Your task to perform on an android device: refresh tabs in the chrome app Image 0: 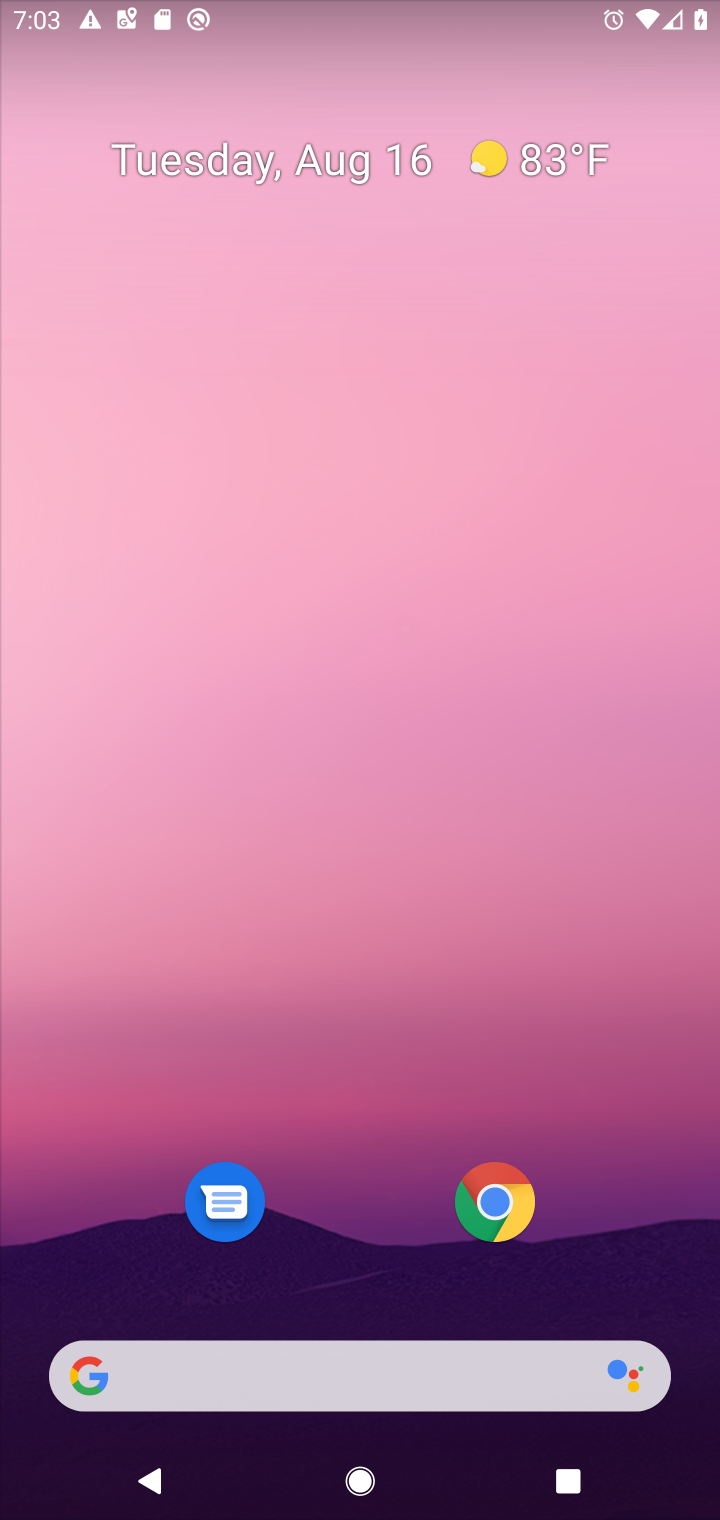
Step 0: drag from (671, 1261) to (279, 95)
Your task to perform on an android device: refresh tabs in the chrome app Image 1: 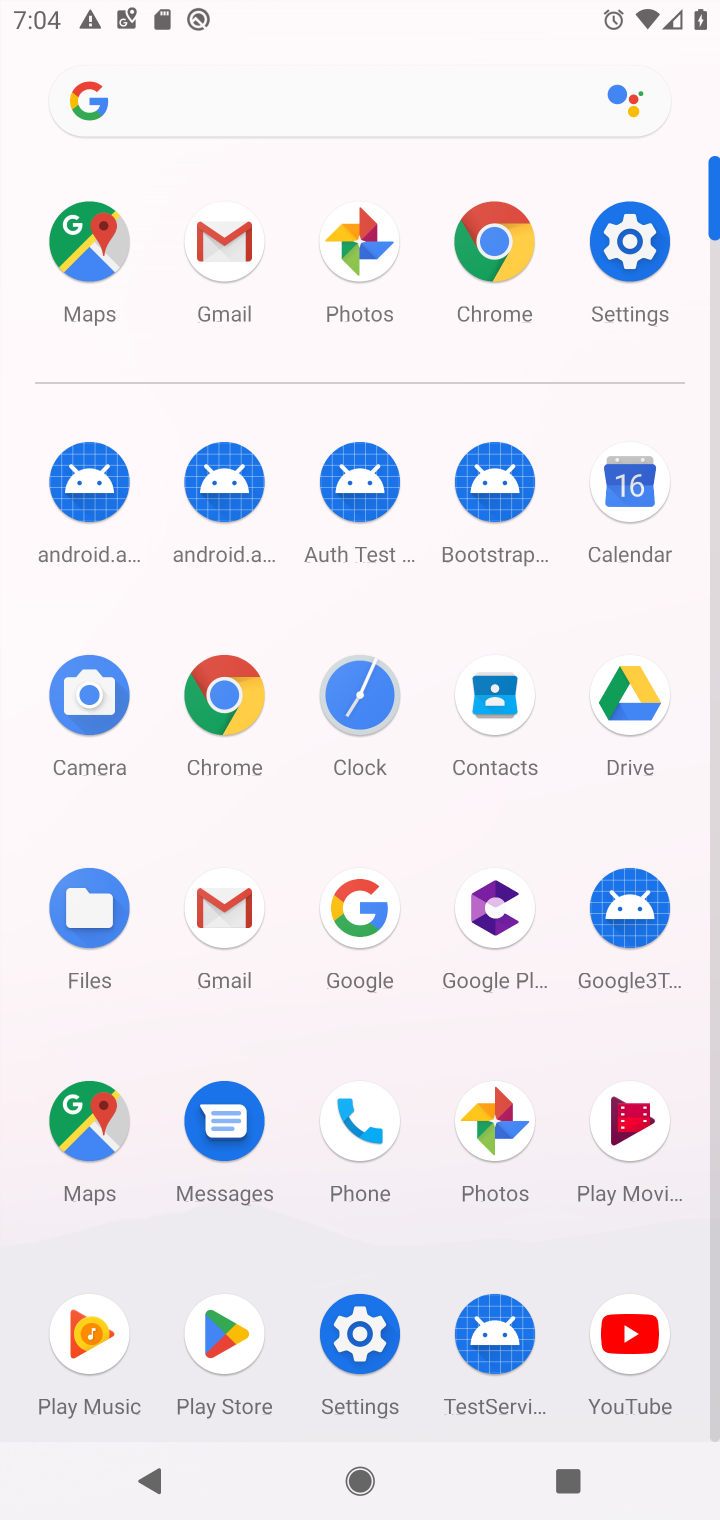
Step 1: click (246, 694)
Your task to perform on an android device: refresh tabs in the chrome app Image 2: 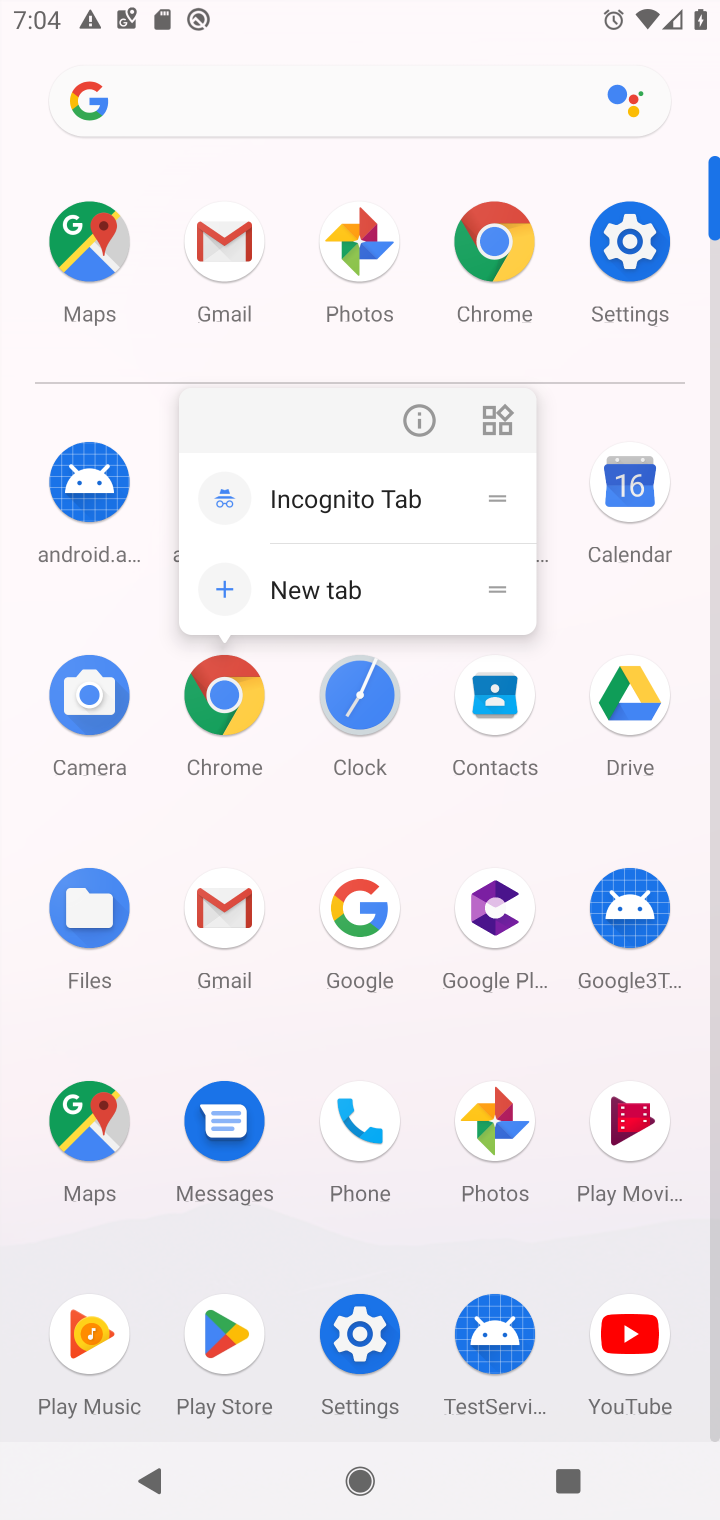
Step 2: click (246, 694)
Your task to perform on an android device: refresh tabs in the chrome app Image 3: 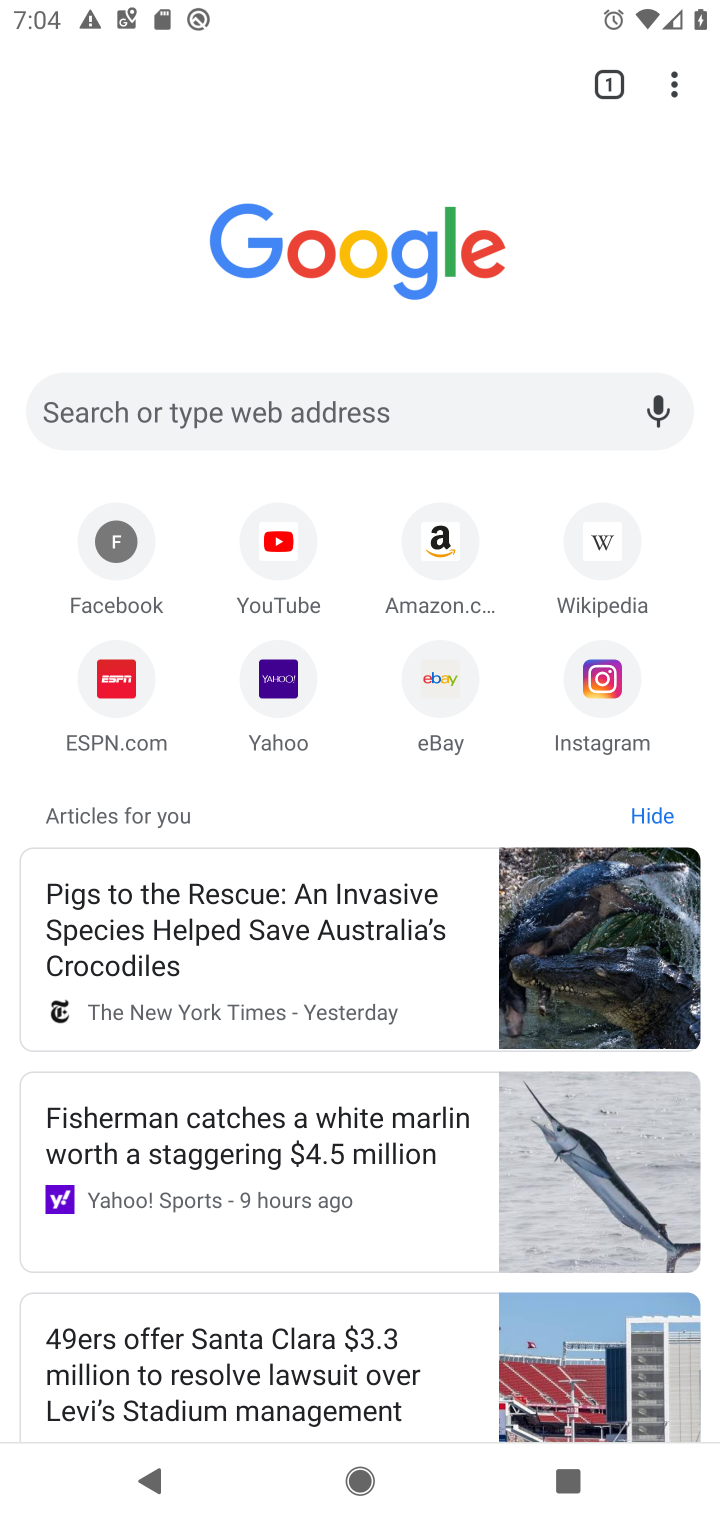
Step 3: click (667, 82)
Your task to perform on an android device: refresh tabs in the chrome app Image 4: 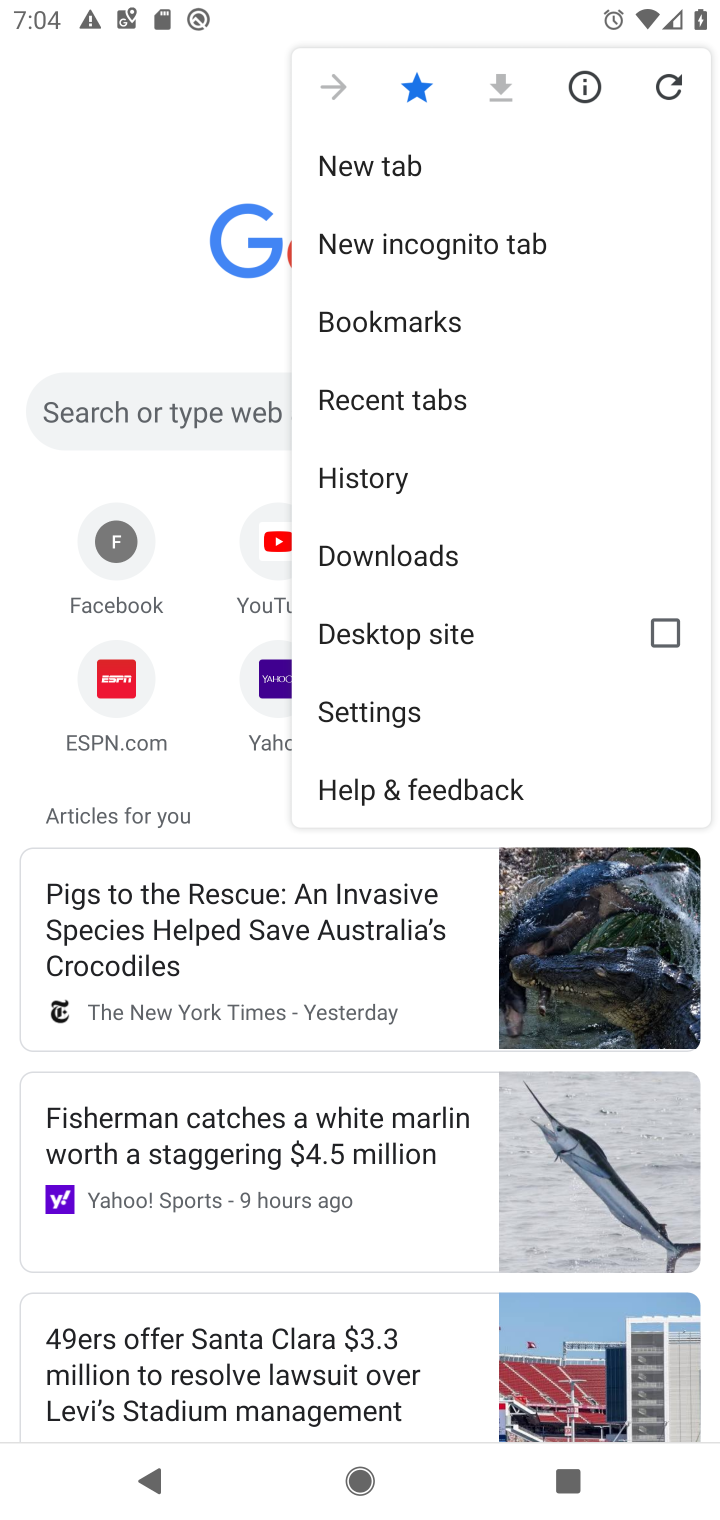
Step 4: click (667, 82)
Your task to perform on an android device: refresh tabs in the chrome app Image 5: 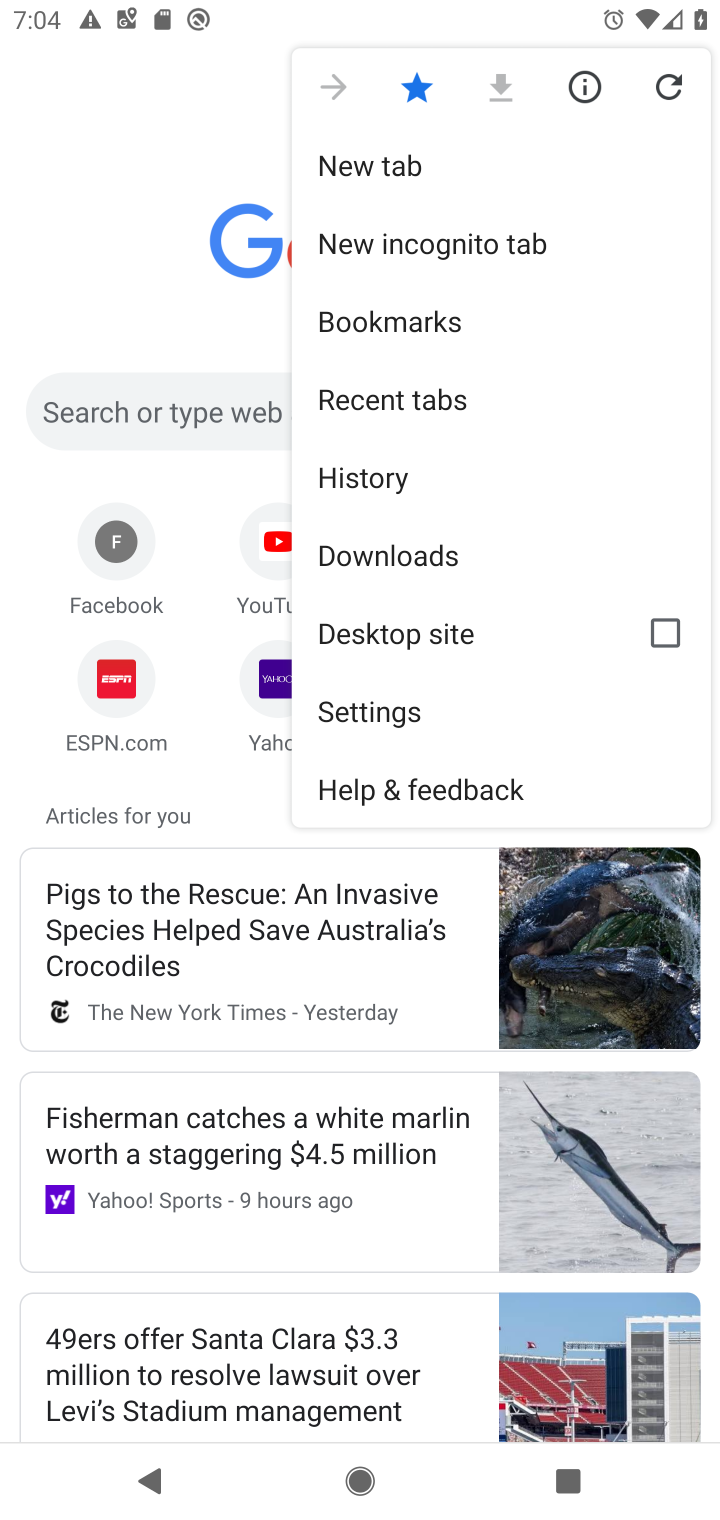
Step 5: click (665, 84)
Your task to perform on an android device: refresh tabs in the chrome app Image 6: 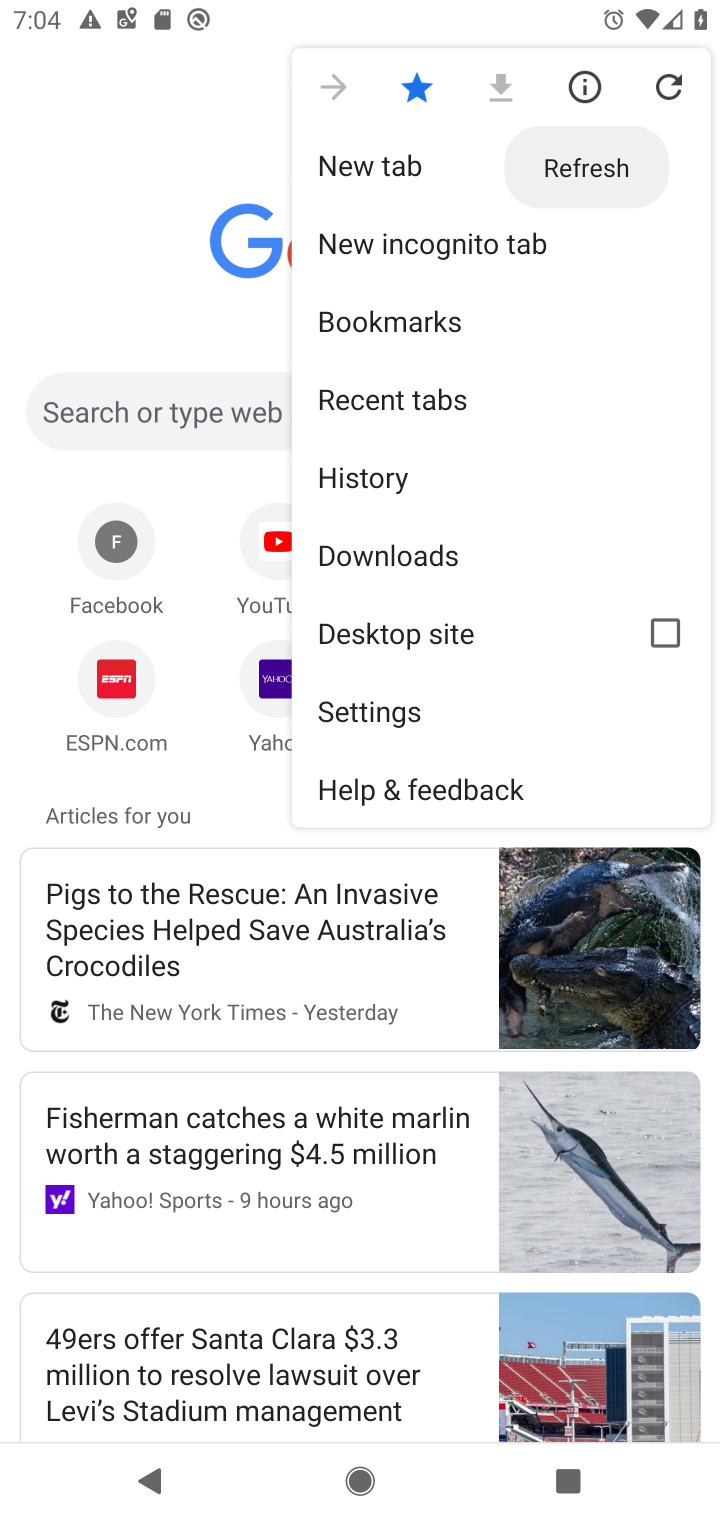
Step 6: click (665, 84)
Your task to perform on an android device: refresh tabs in the chrome app Image 7: 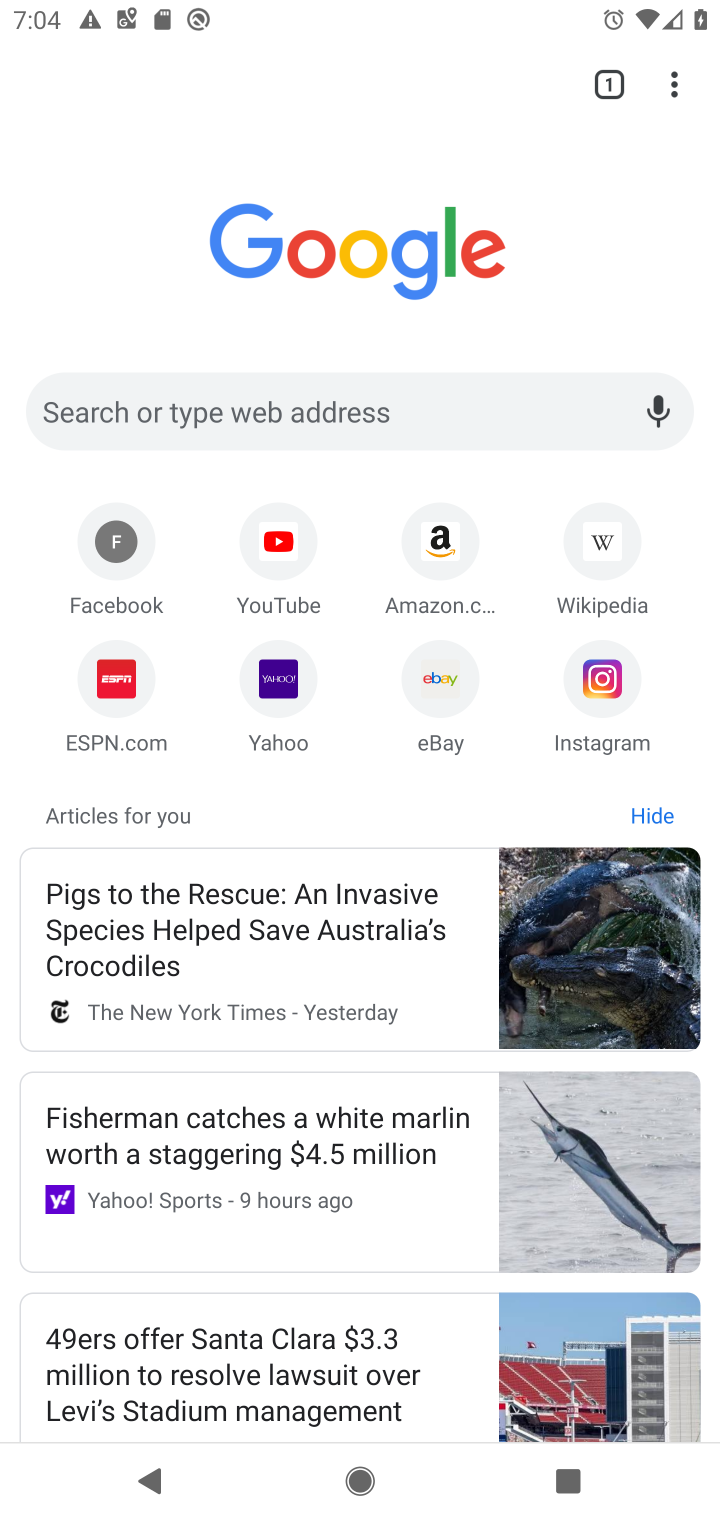
Step 7: task complete